Your task to perform on an android device: What is the price of a 12' ladder at Home Depot? Image 0: 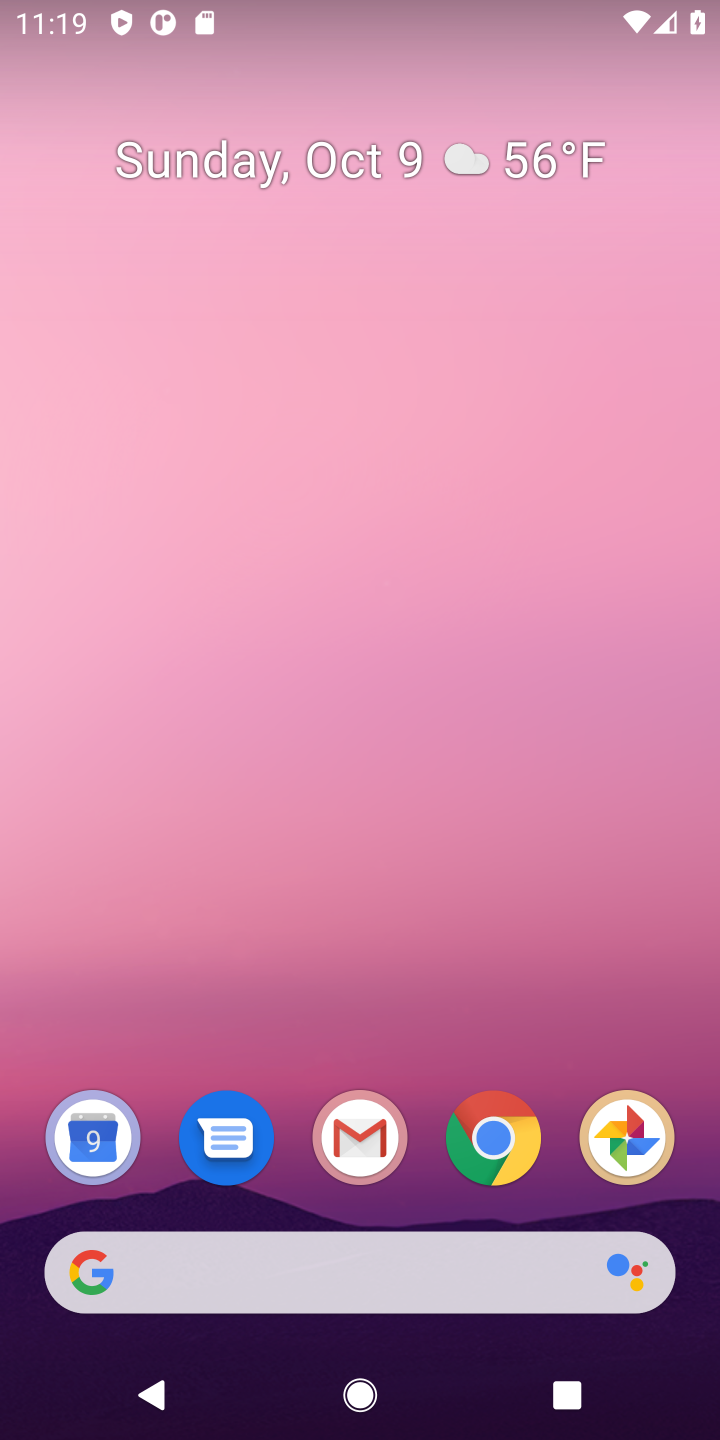
Step 0: drag from (403, 1056) to (399, 128)
Your task to perform on an android device: What is the price of a 12' ladder at Home Depot? Image 1: 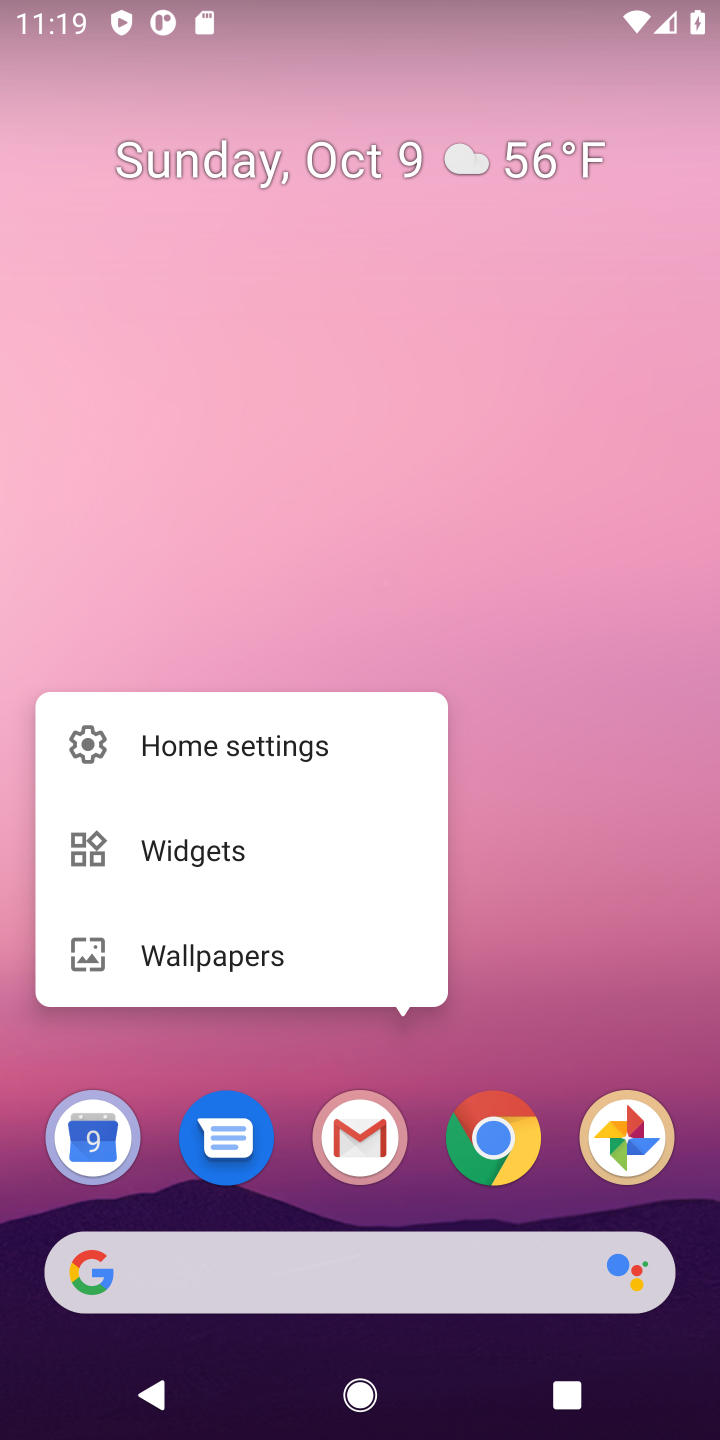
Step 1: click (625, 636)
Your task to perform on an android device: What is the price of a 12' ladder at Home Depot? Image 2: 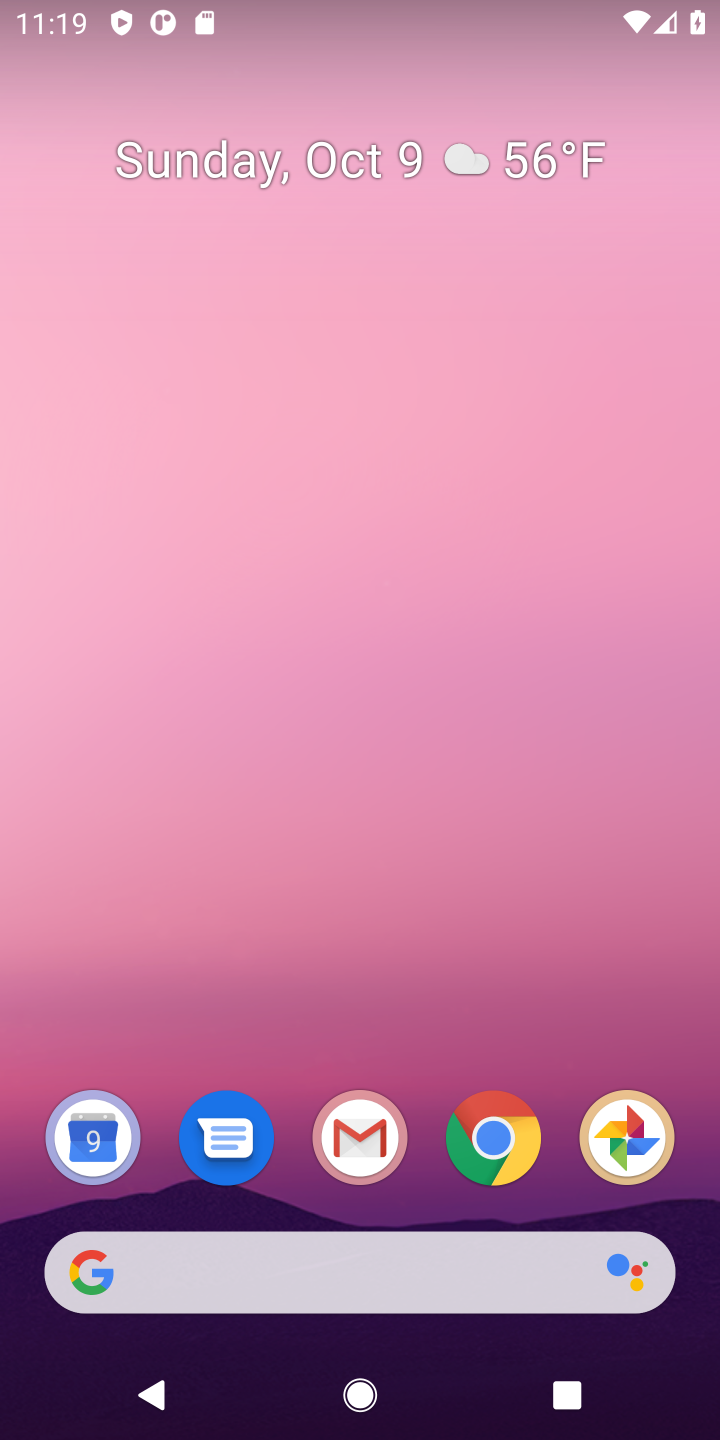
Step 2: drag from (545, 1062) to (617, 105)
Your task to perform on an android device: What is the price of a 12' ladder at Home Depot? Image 3: 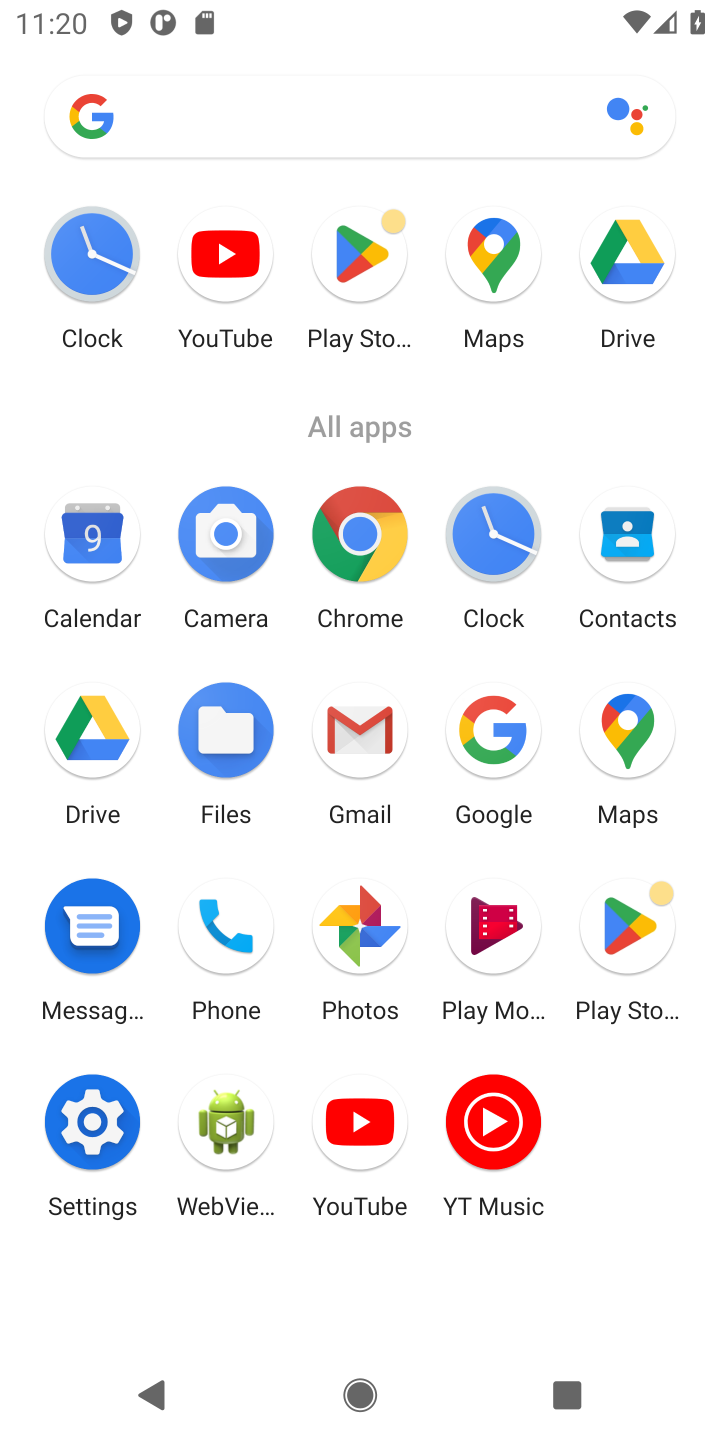
Step 3: click (367, 538)
Your task to perform on an android device: What is the price of a 12' ladder at Home Depot? Image 4: 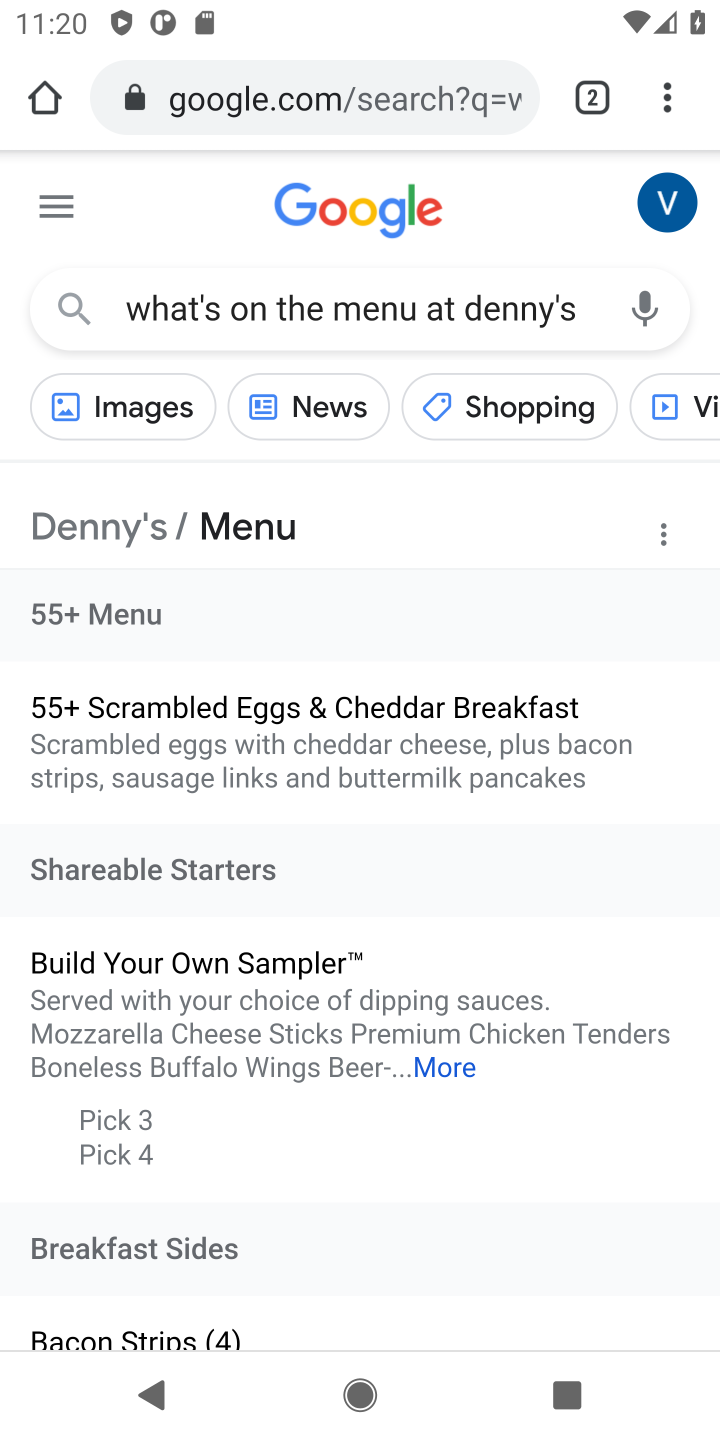
Step 4: click (398, 105)
Your task to perform on an android device: What is the price of a 12' ladder at Home Depot? Image 5: 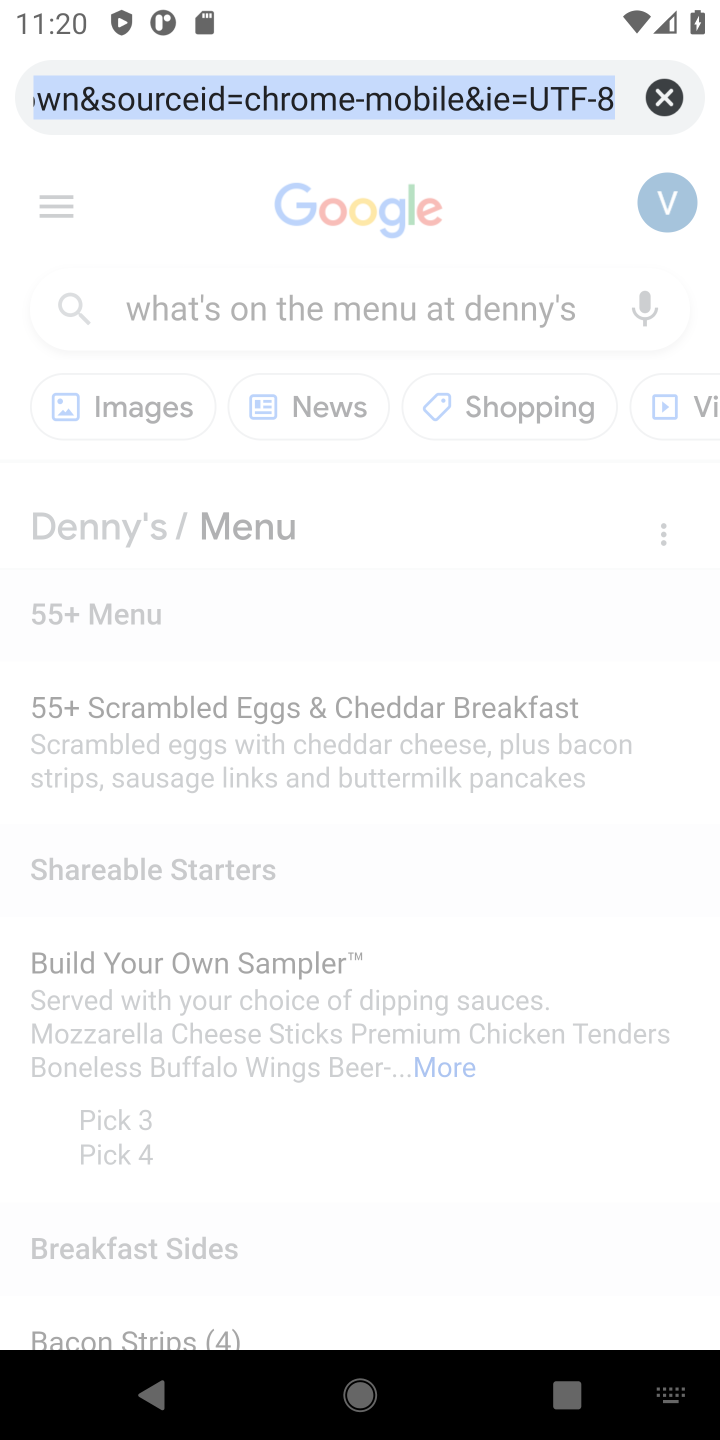
Step 5: click (671, 95)
Your task to perform on an android device: What is the price of a 12' ladder at Home Depot? Image 6: 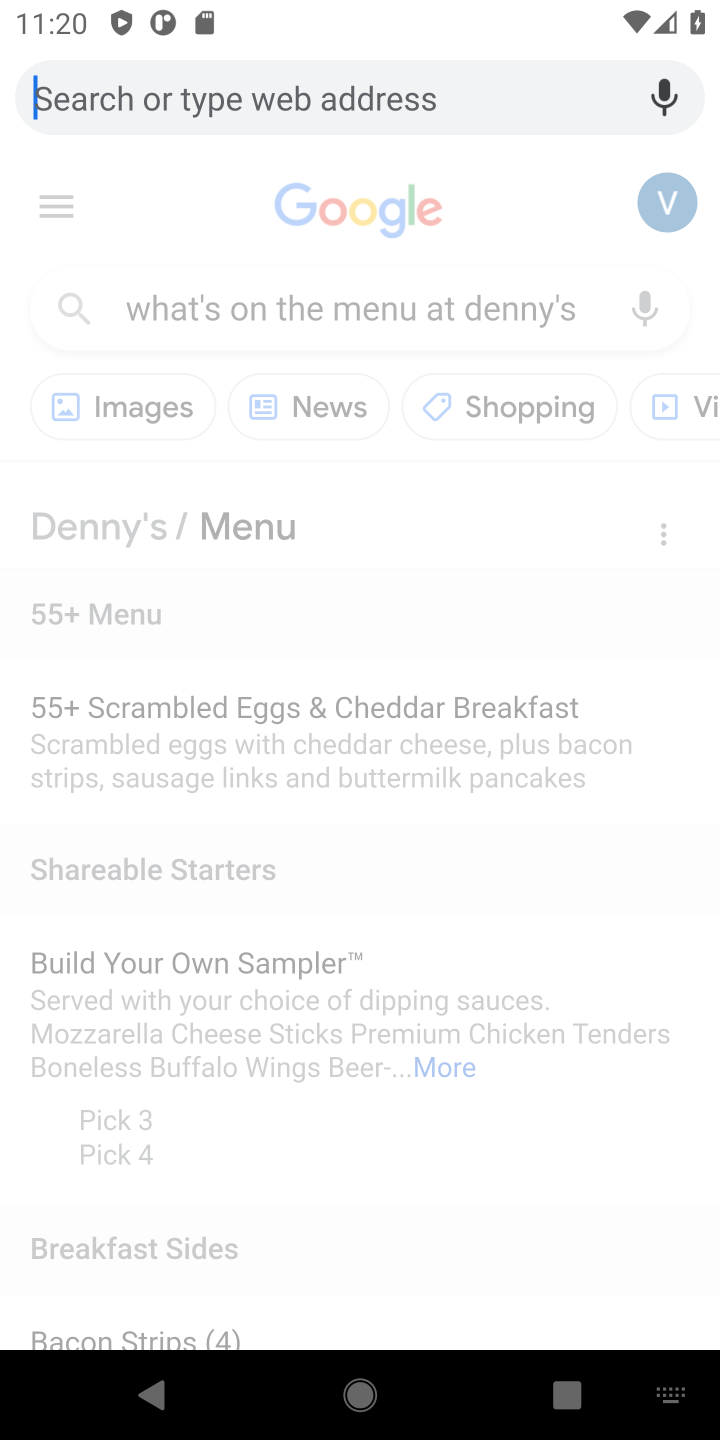
Step 6: type "What is the price of a 12' ladder at Home Depot?"
Your task to perform on an android device: What is the price of a 12' ladder at Home Depot? Image 7: 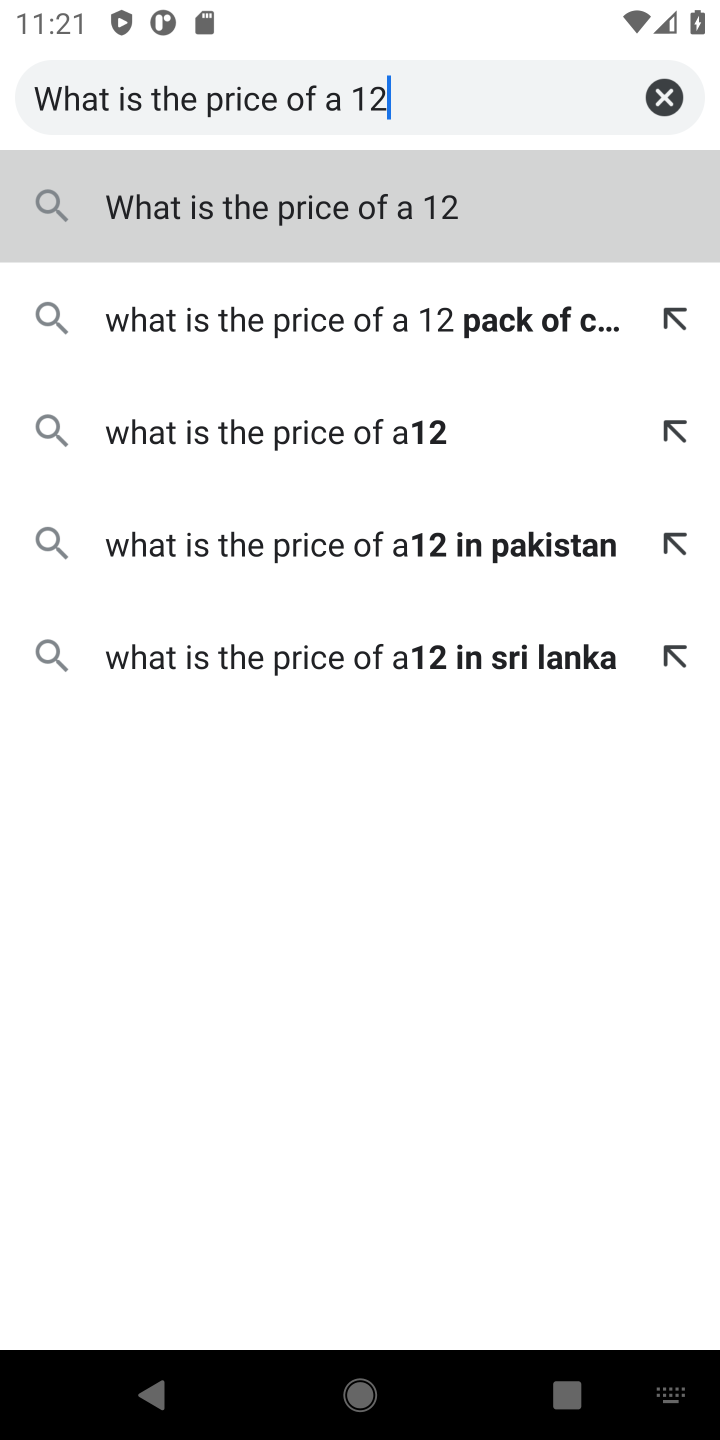
Step 7: click (379, 196)
Your task to perform on an android device: What is the price of a 12' ladder at Home Depot? Image 8: 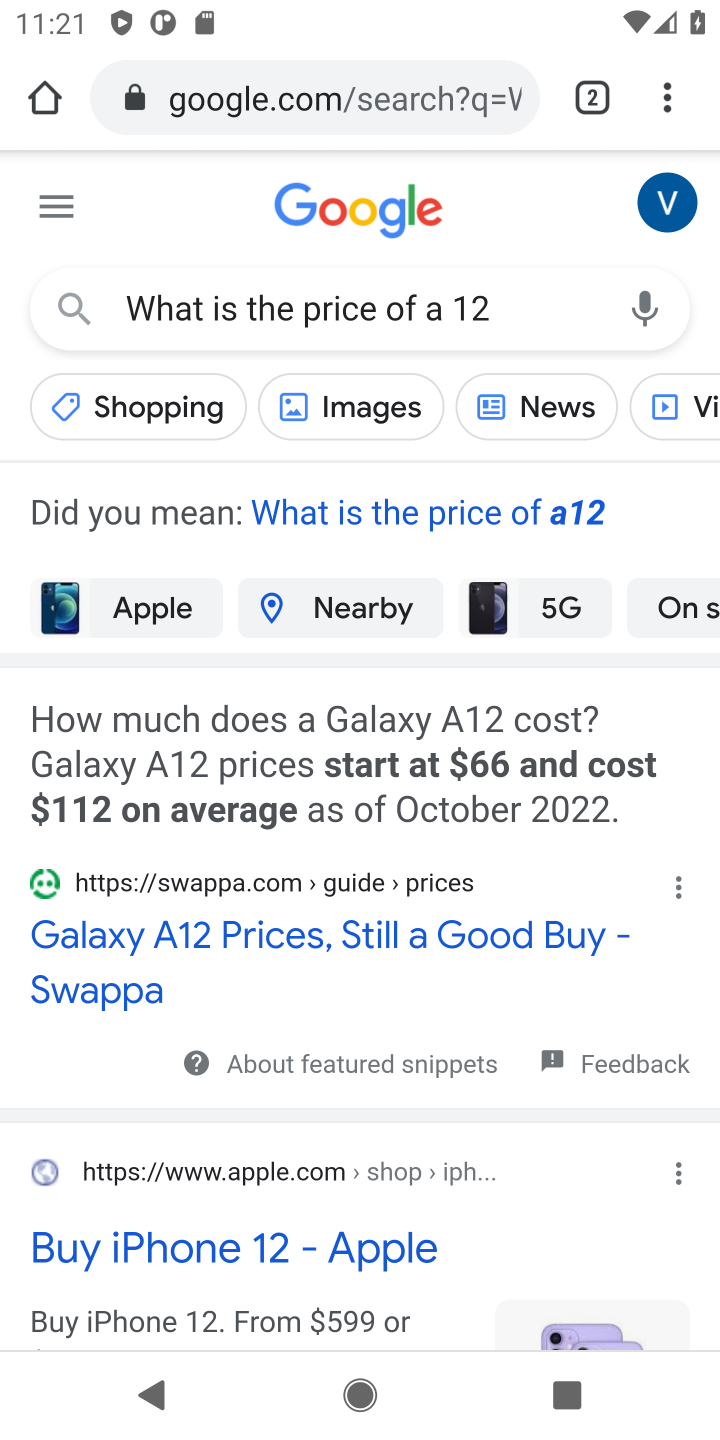
Step 8: task complete